Your task to perform on an android device: Show me some nice wallpapers for my computer Image 0: 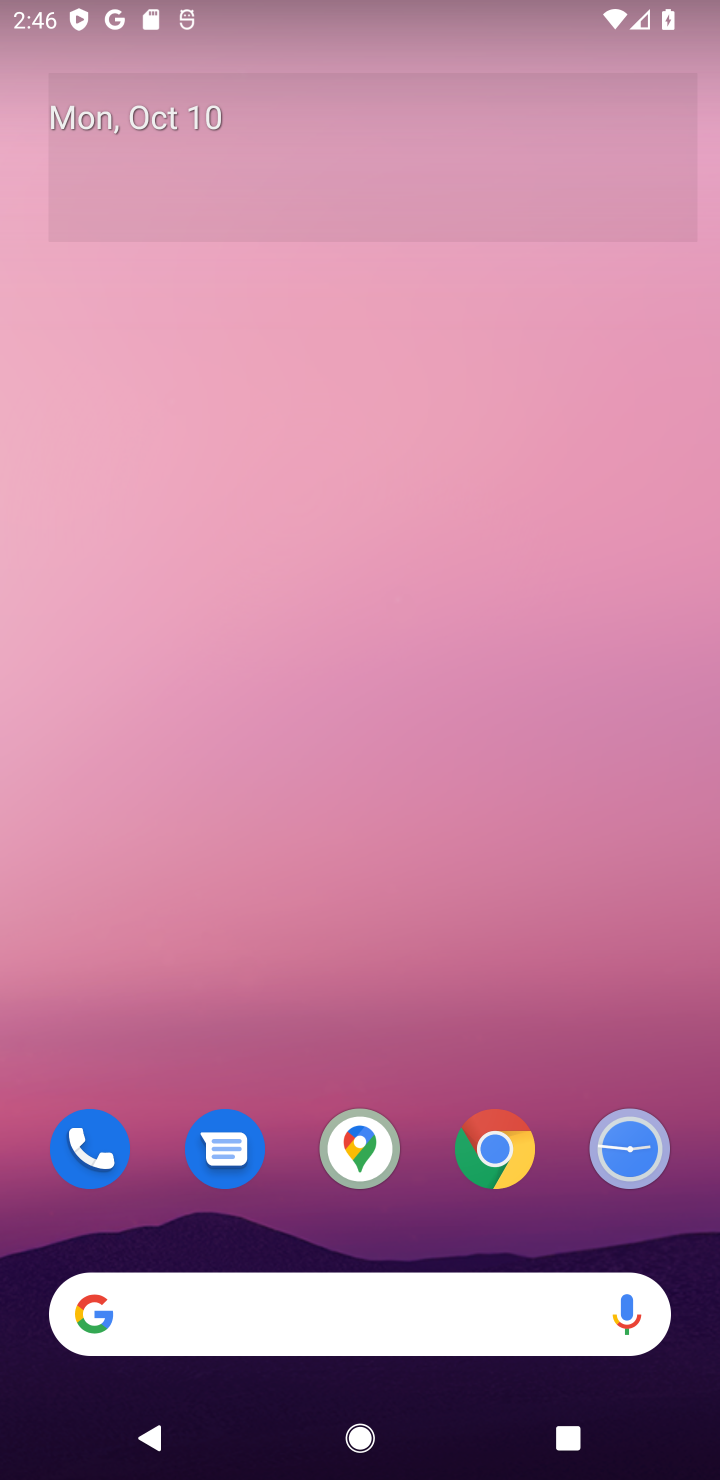
Step 0: click (434, 1332)
Your task to perform on an android device: Show me some nice wallpapers for my computer Image 1: 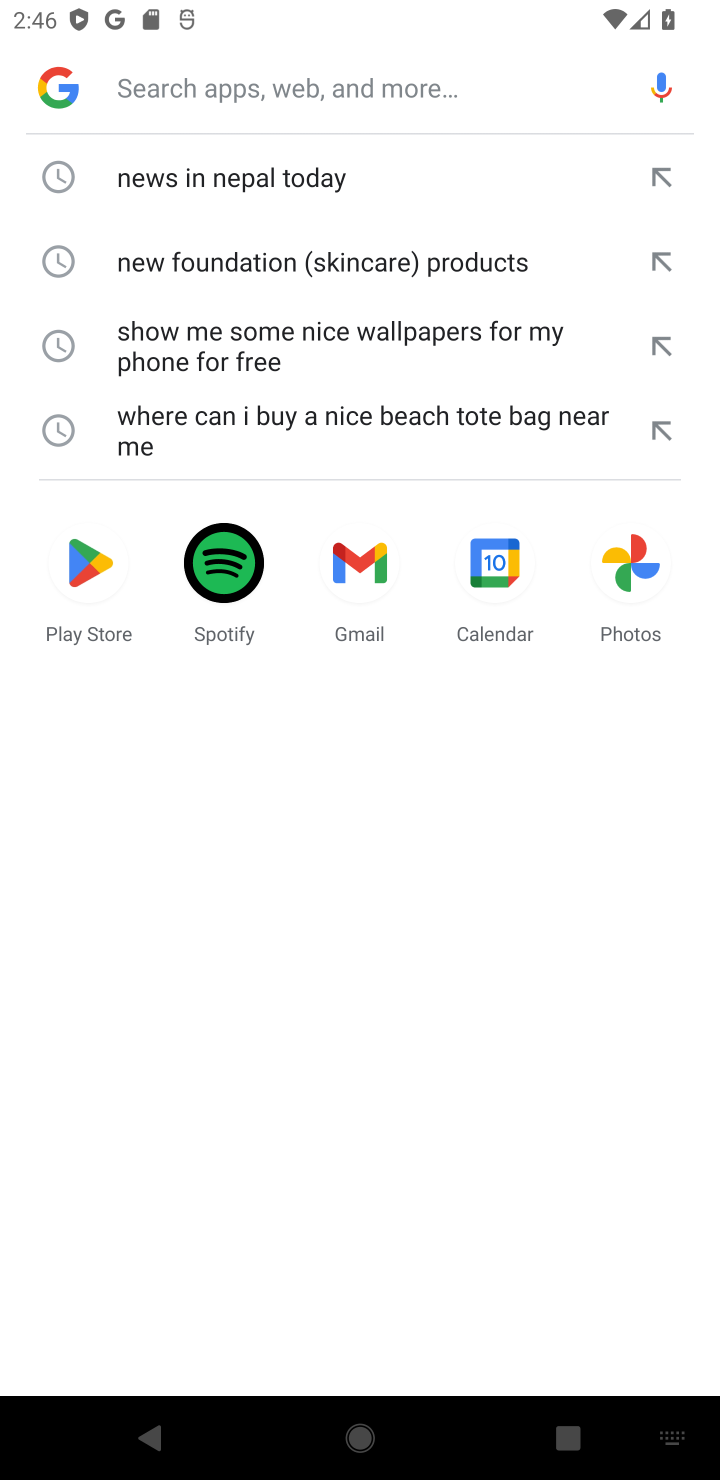
Step 1: type "Show me some nice wallpapers for my computer"
Your task to perform on an android device: Show me some nice wallpapers for my computer Image 2: 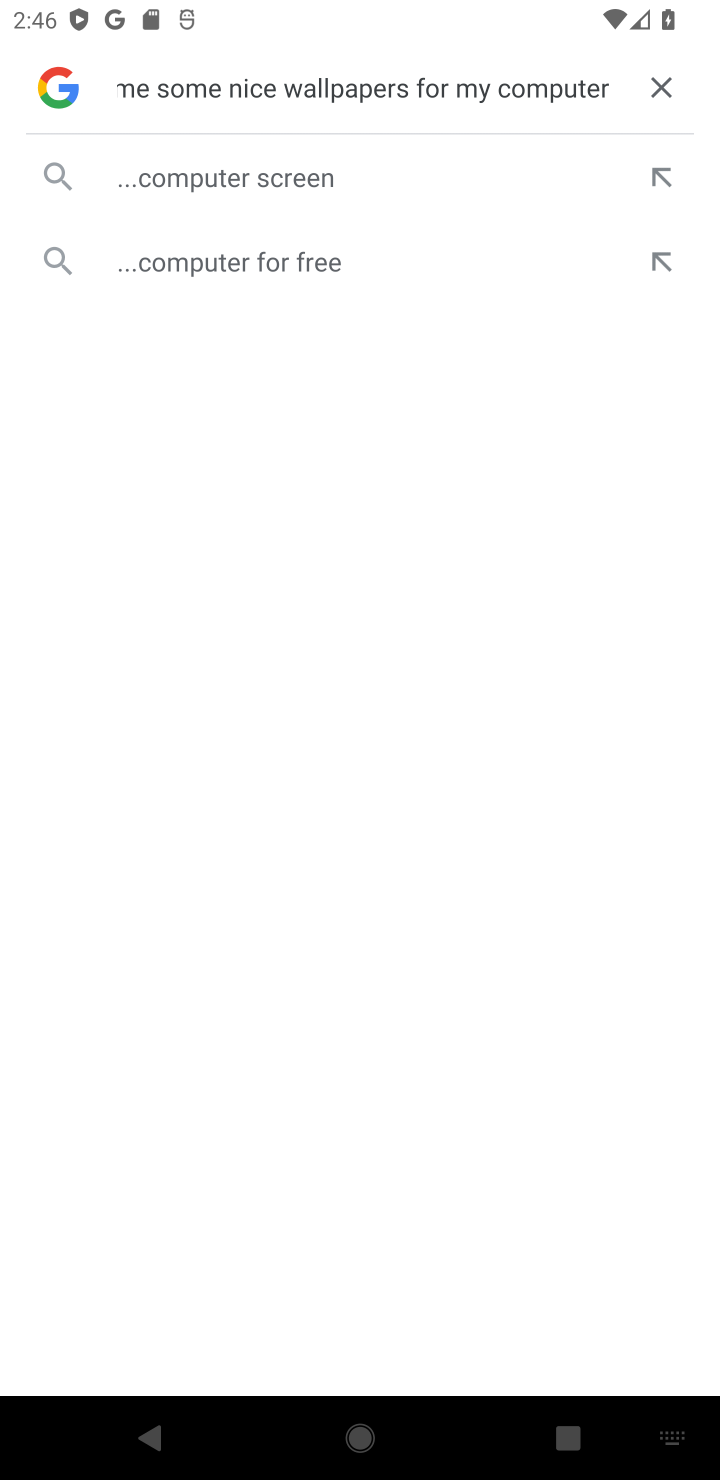
Step 2: click (460, 168)
Your task to perform on an android device: Show me some nice wallpapers for my computer Image 3: 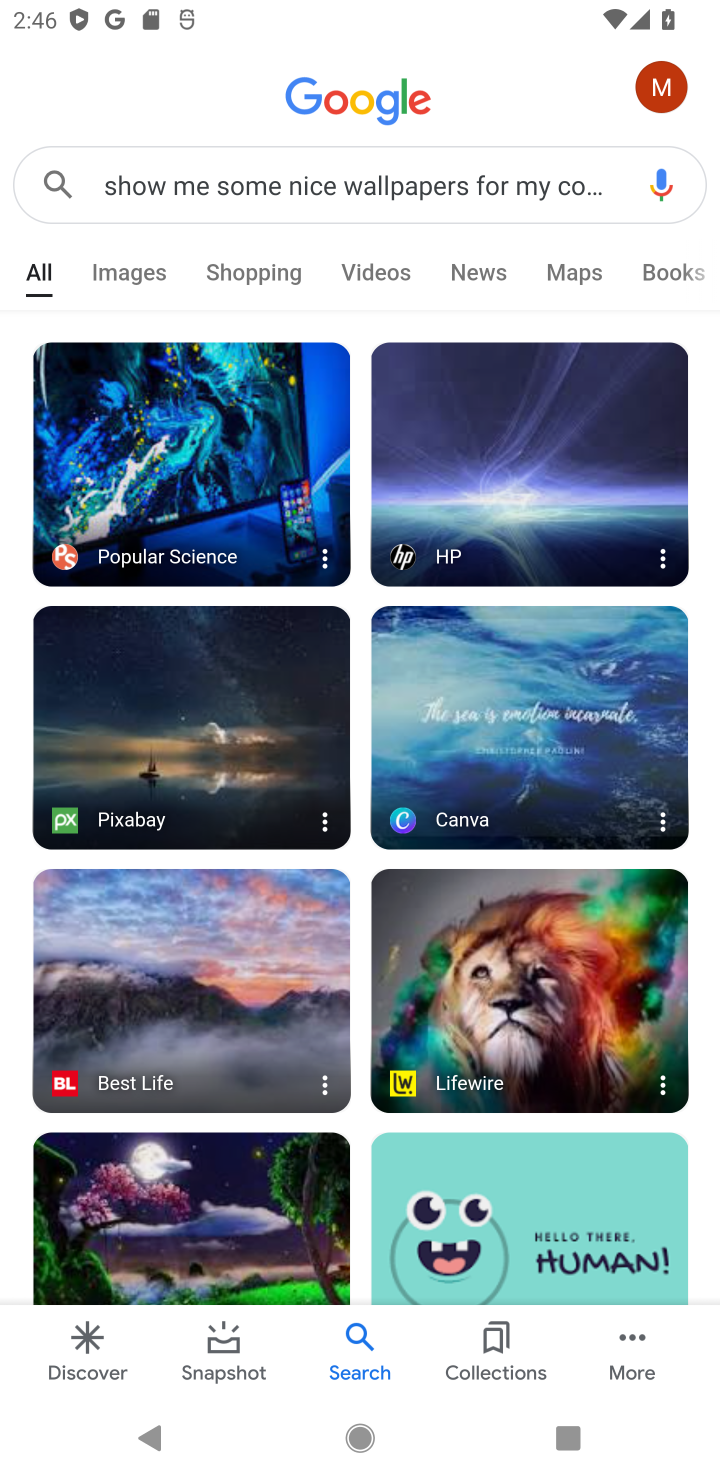
Step 3: task complete